Your task to perform on an android device: delete a single message in the gmail app Image 0: 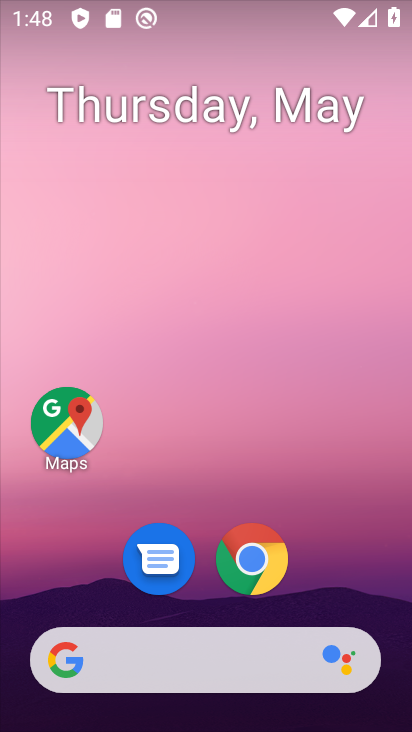
Step 0: drag from (199, 605) to (189, 229)
Your task to perform on an android device: delete a single message in the gmail app Image 1: 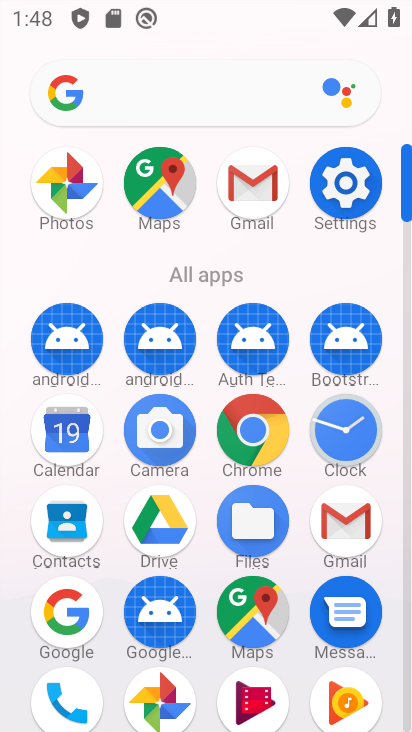
Step 1: click (257, 214)
Your task to perform on an android device: delete a single message in the gmail app Image 2: 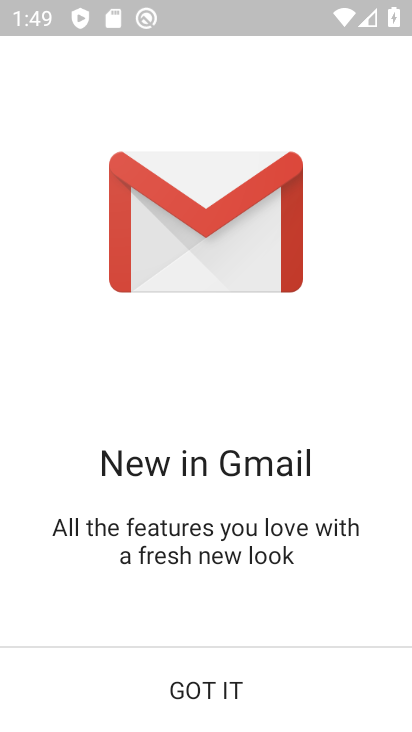
Step 2: click (201, 676)
Your task to perform on an android device: delete a single message in the gmail app Image 3: 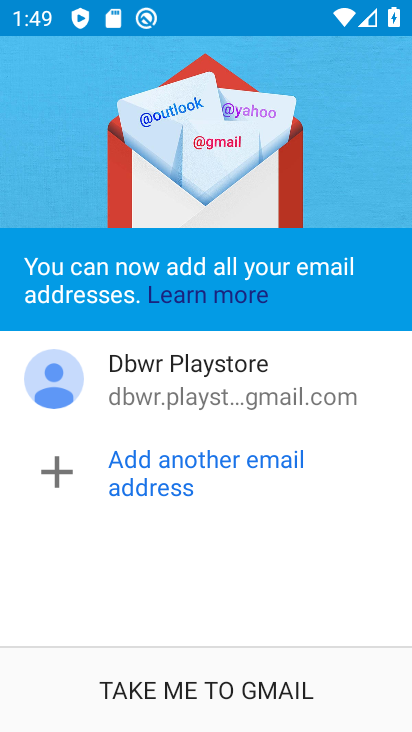
Step 3: click (259, 673)
Your task to perform on an android device: delete a single message in the gmail app Image 4: 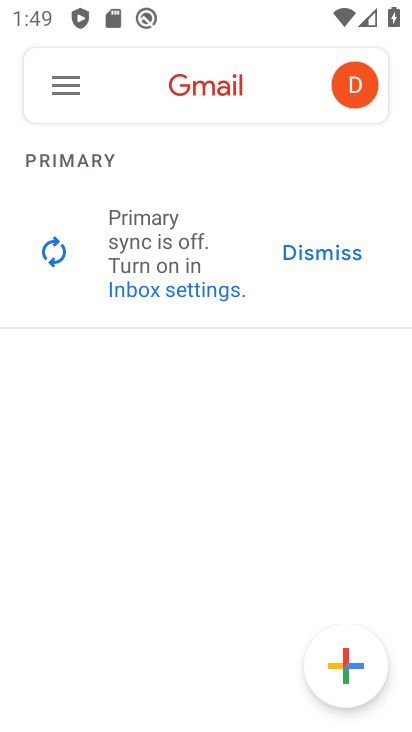
Step 4: click (80, 80)
Your task to perform on an android device: delete a single message in the gmail app Image 5: 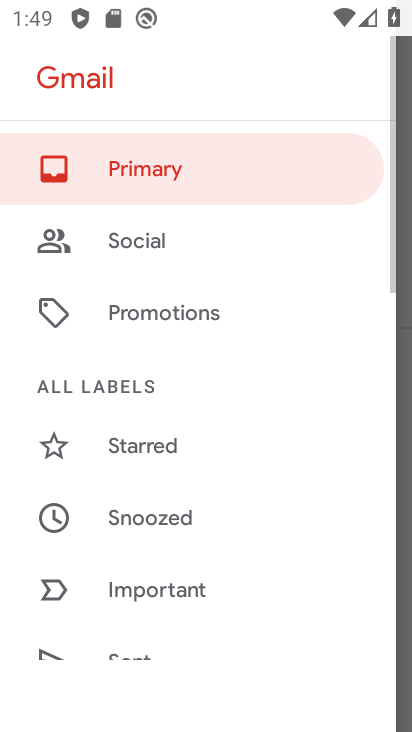
Step 5: drag from (184, 594) to (196, 240)
Your task to perform on an android device: delete a single message in the gmail app Image 6: 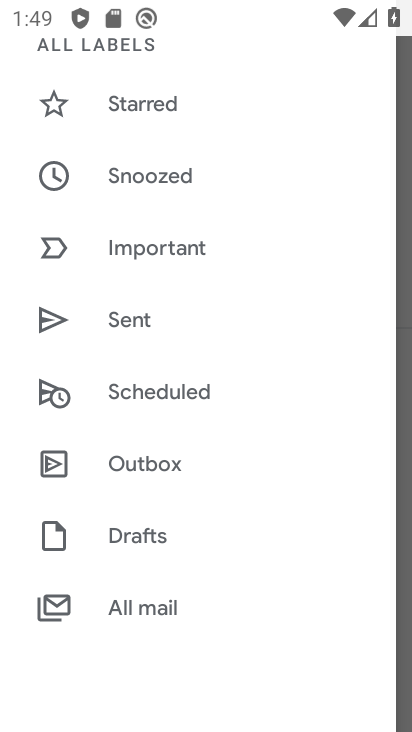
Step 6: click (163, 616)
Your task to perform on an android device: delete a single message in the gmail app Image 7: 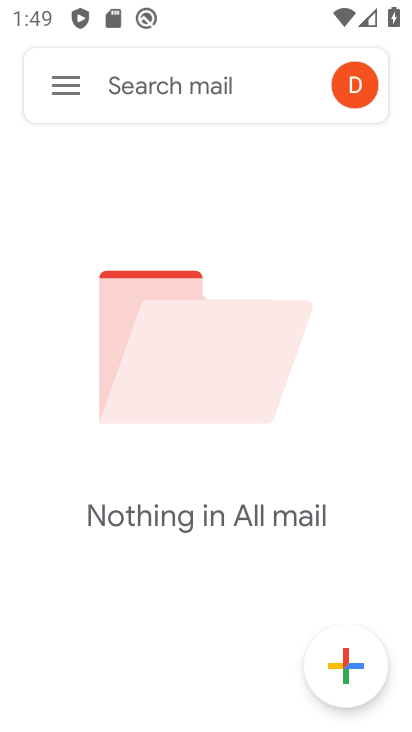
Step 7: task complete